Your task to perform on an android device: Open maps Image 0: 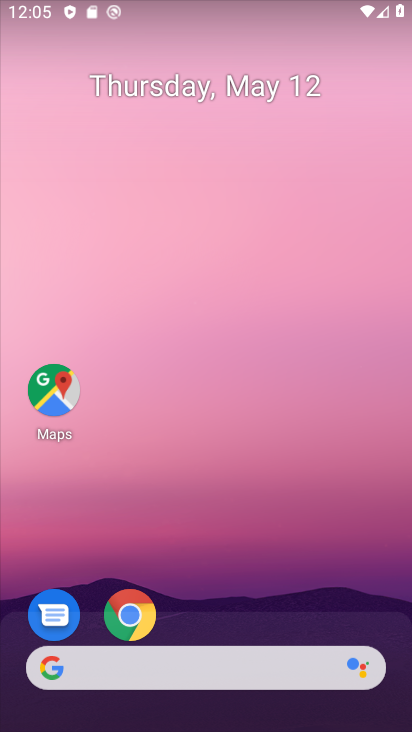
Step 0: click (64, 405)
Your task to perform on an android device: Open maps Image 1: 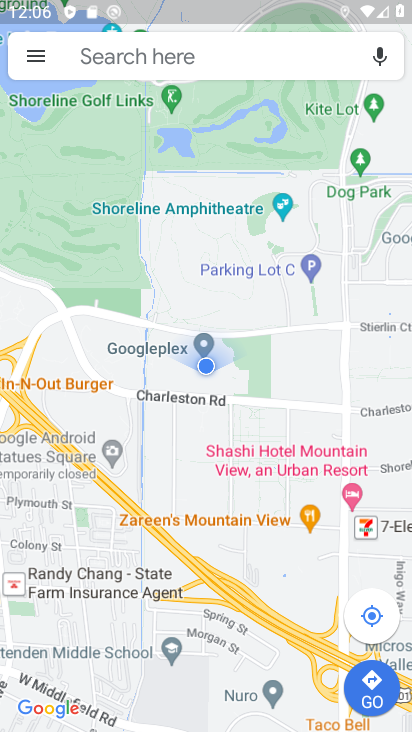
Step 1: task complete